Your task to perform on an android device: Do I have any events tomorrow? Image 0: 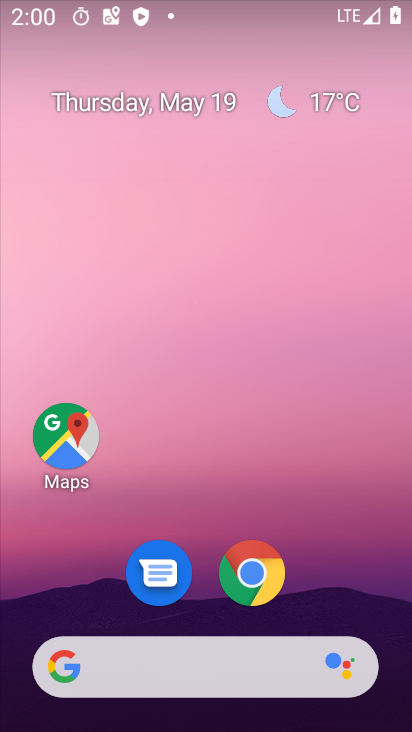
Step 0: drag from (220, 466) to (237, 127)
Your task to perform on an android device: Do I have any events tomorrow? Image 1: 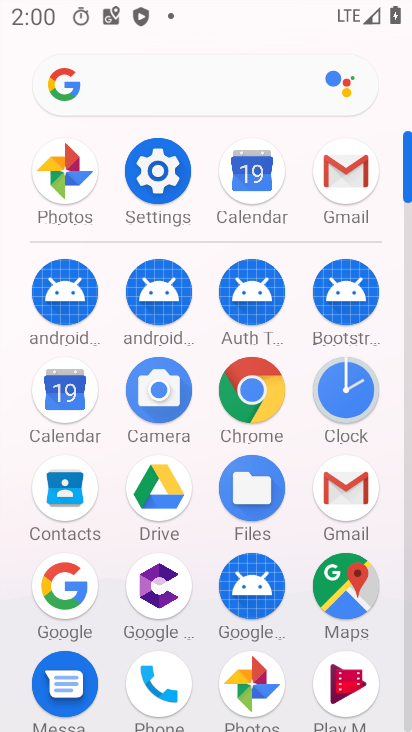
Step 1: click (70, 393)
Your task to perform on an android device: Do I have any events tomorrow? Image 2: 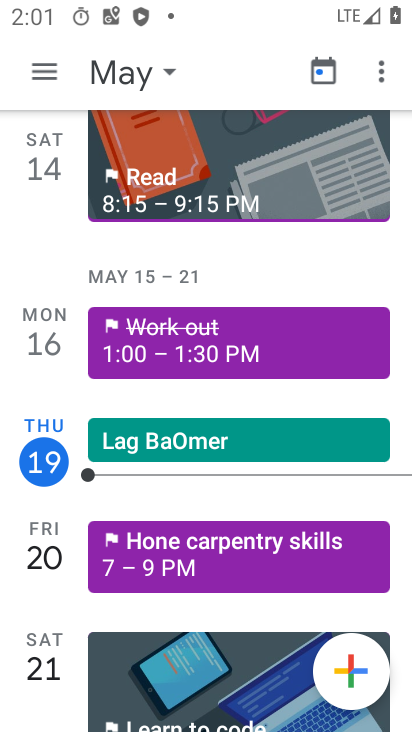
Step 2: click (199, 566)
Your task to perform on an android device: Do I have any events tomorrow? Image 3: 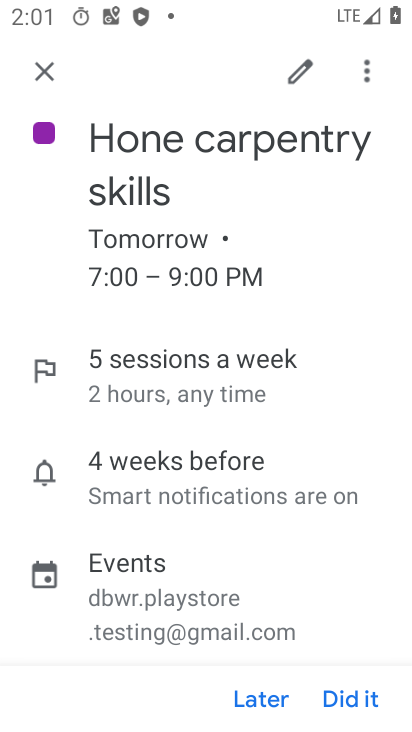
Step 3: task complete